Your task to perform on an android device: Open the map Image 0: 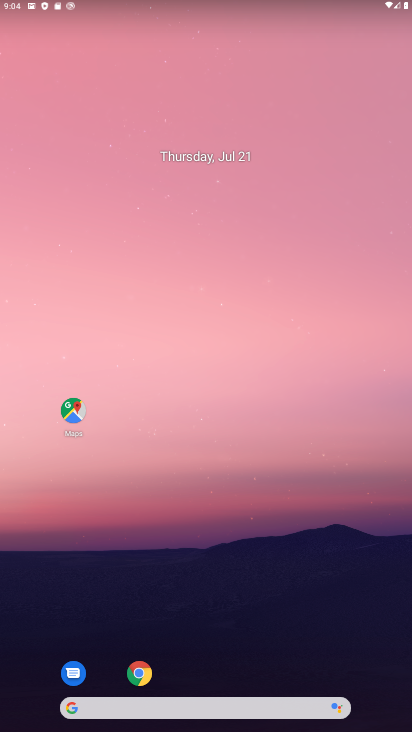
Step 0: click (311, 149)
Your task to perform on an android device: Open the map Image 1: 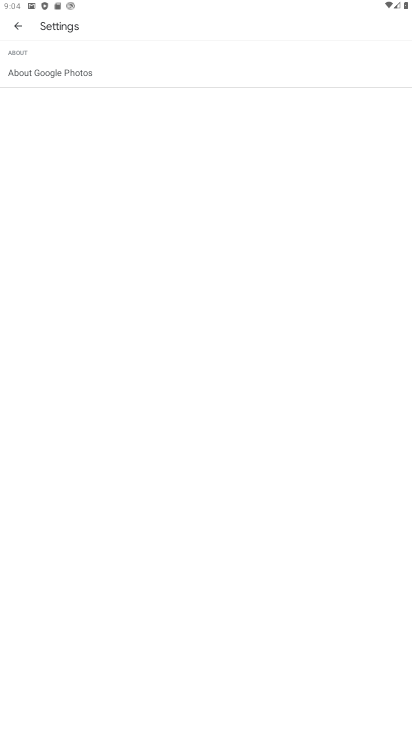
Step 1: press home button
Your task to perform on an android device: Open the map Image 2: 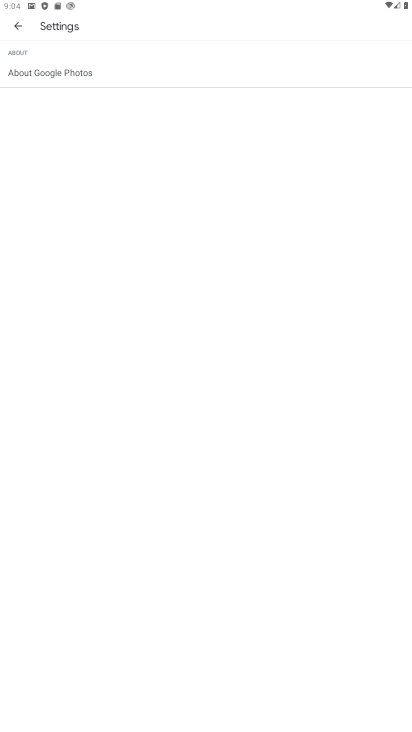
Step 2: press home button
Your task to perform on an android device: Open the map Image 3: 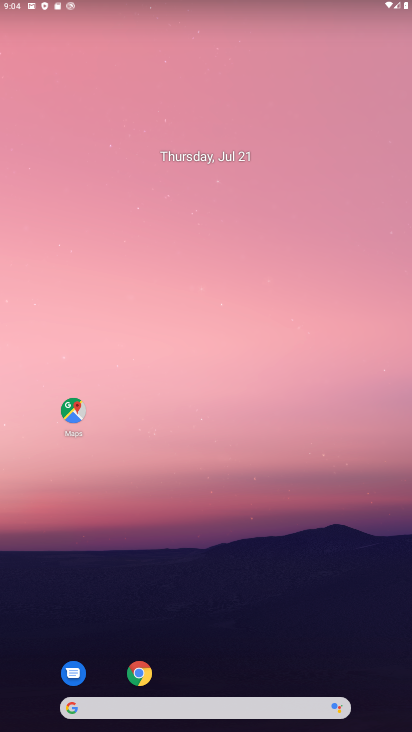
Step 3: drag from (199, 604) to (254, 68)
Your task to perform on an android device: Open the map Image 4: 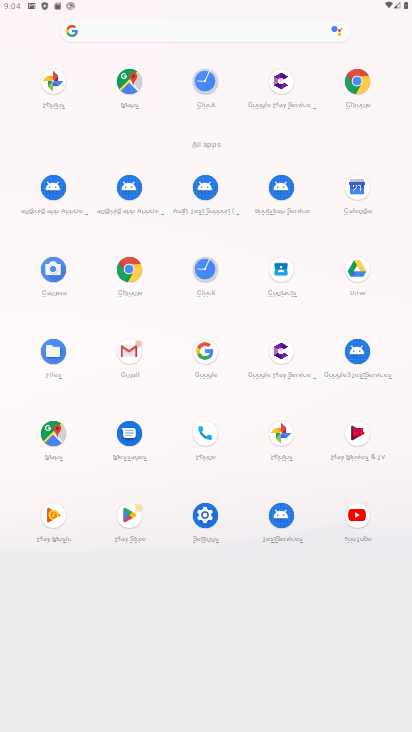
Step 4: click (41, 417)
Your task to perform on an android device: Open the map Image 5: 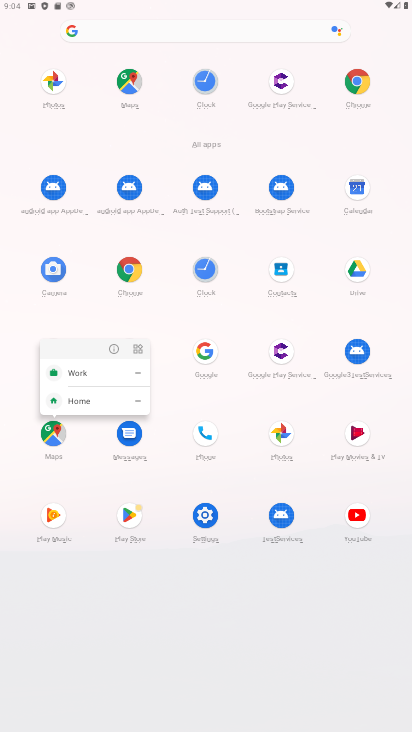
Step 5: click (112, 349)
Your task to perform on an android device: Open the map Image 6: 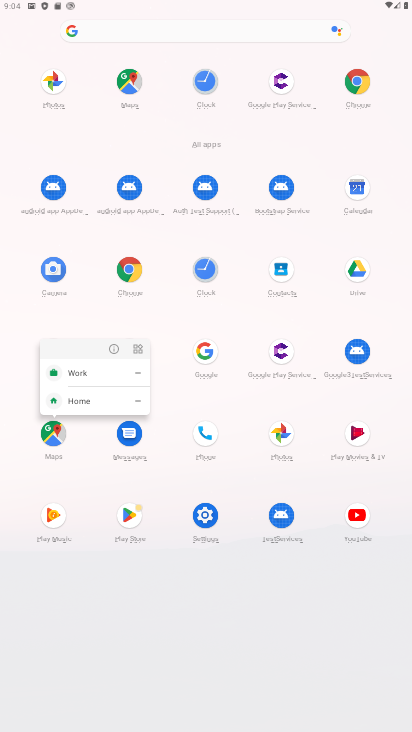
Step 6: click (112, 349)
Your task to perform on an android device: Open the map Image 7: 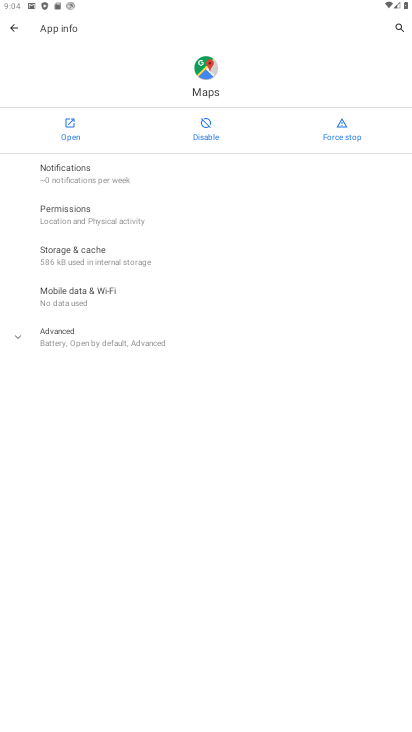
Step 7: click (65, 130)
Your task to perform on an android device: Open the map Image 8: 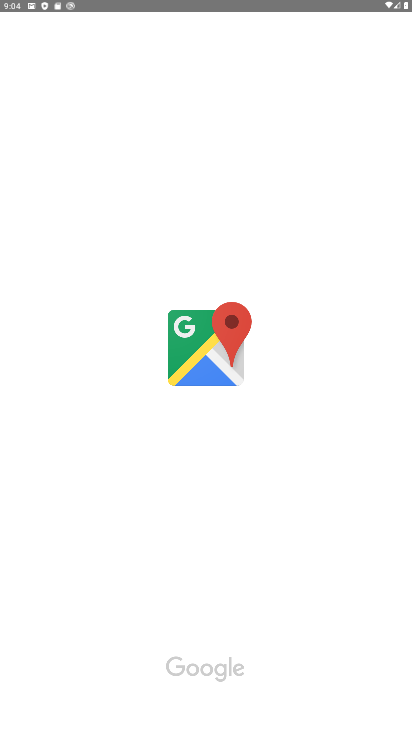
Step 8: task complete